Your task to perform on an android device: Search for sushi restaurants on Maps Image 0: 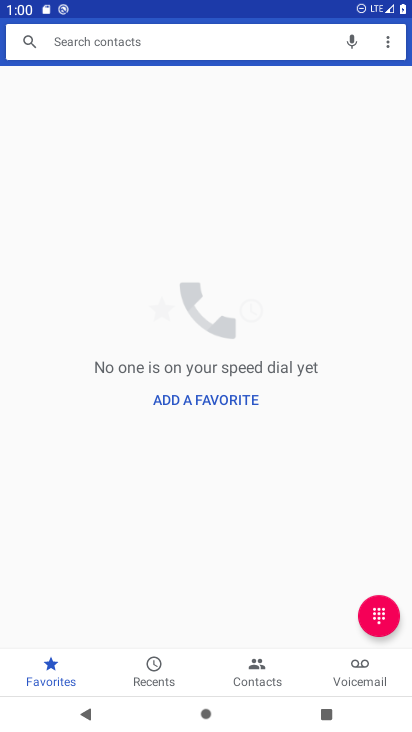
Step 0: press home button
Your task to perform on an android device: Search for sushi restaurants on Maps Image 1: 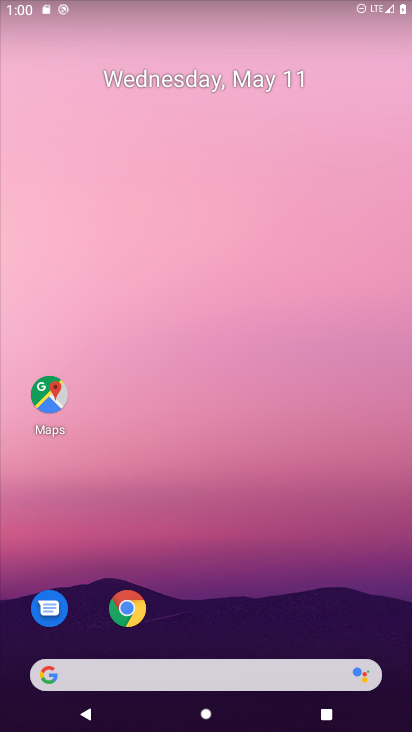
Step 1: click (42, 395)
Your task to perform on an android device: Search for sushi restaurants on Maps Image 2: 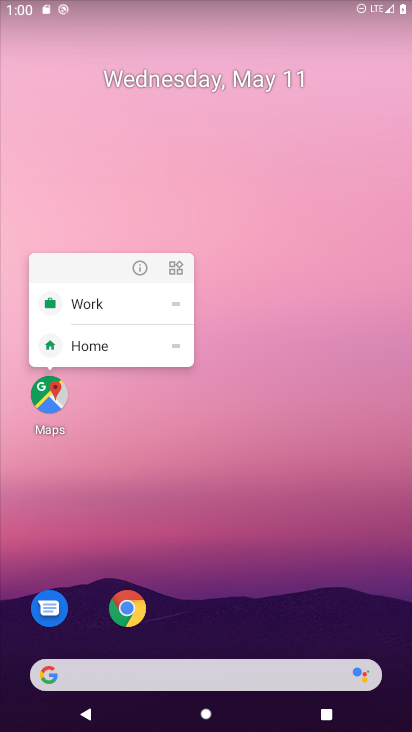
Step 2: click (49, 399)
Your task to perform on an android device: Search for sushi restaurants on Maps Image 3: 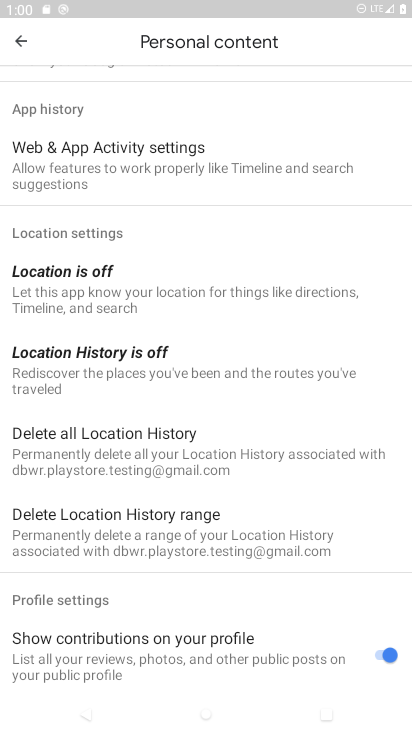
Step 3: click (17, 30)
Your task to perform on an android device: Search for sushi restaurants on Maps Image 4: 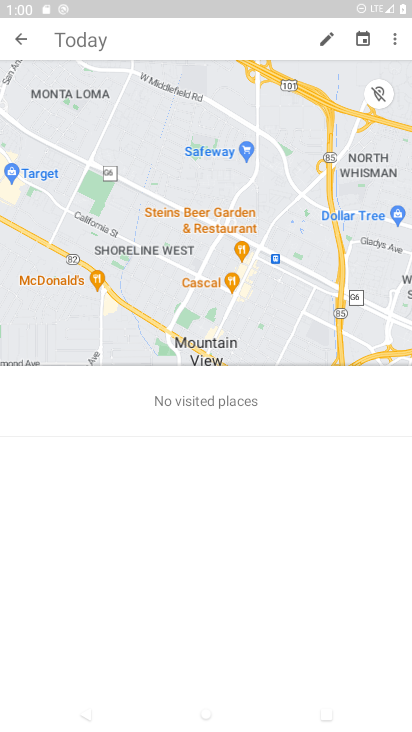
Step 4: click (18, 33)
Your task to perform on an android device: Search for sushi restaurants on Maps Image 5: 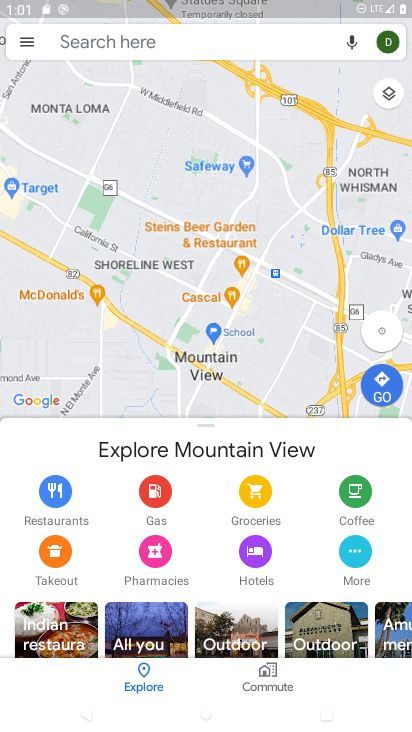
Step 5: click (105, 29)
Your task to perform on an android device: Search for sushi restaurants on Maps Image 6: 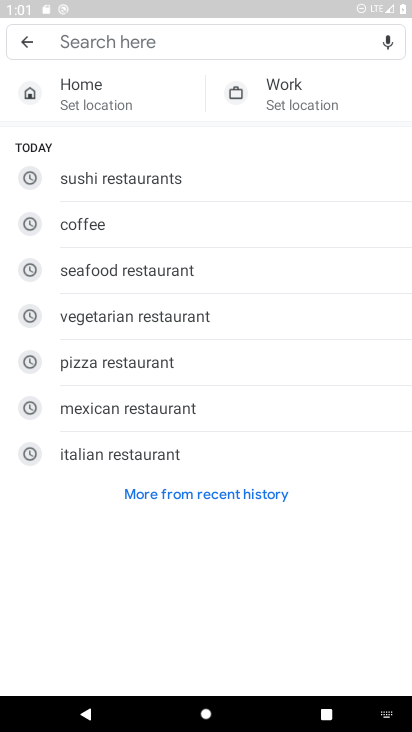
Step 6: click (143, 172)
Your task to perform on an android device: Search for sushi restaurants on Maps Image 7: 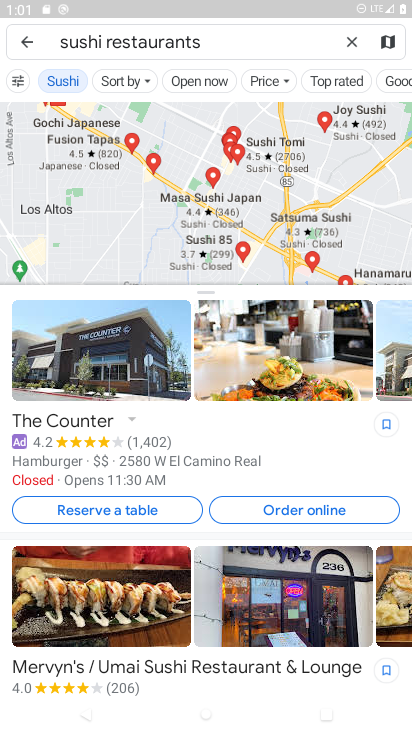
Step 7: task complete